Your task to perform on an android device: Find coffee shops on Maps Image 0: 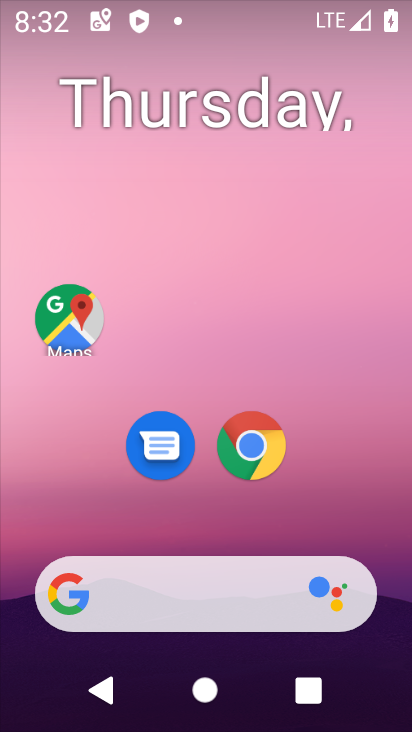
Step 0: drag from (390, 602) to (322, 104)
Your task to perform on an android device: Find coffee shops on Maps Image 1: 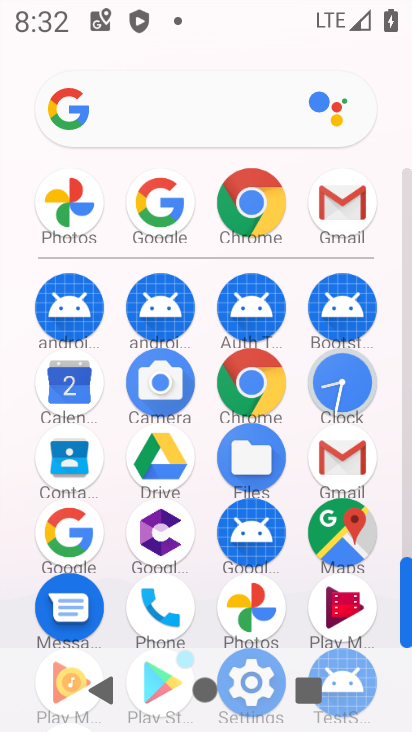
Step 1: click (359, 526)
Your task to perform on an android device: Find coffee shops on Maps Image 2: 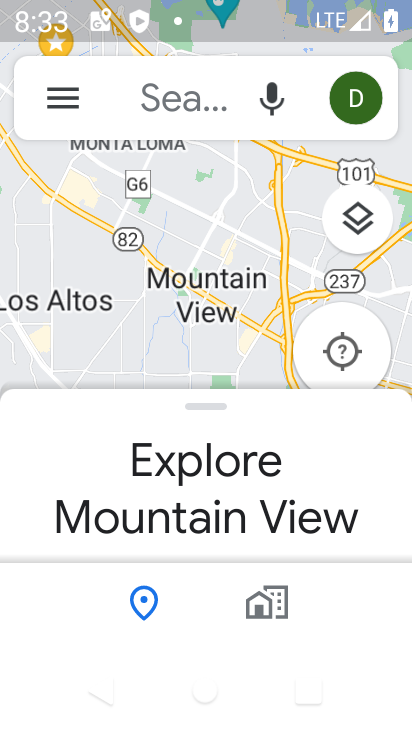
Step 2: click (159, 97)
Your task to perform on an android device: Find coffee shops on Maps Image 3: 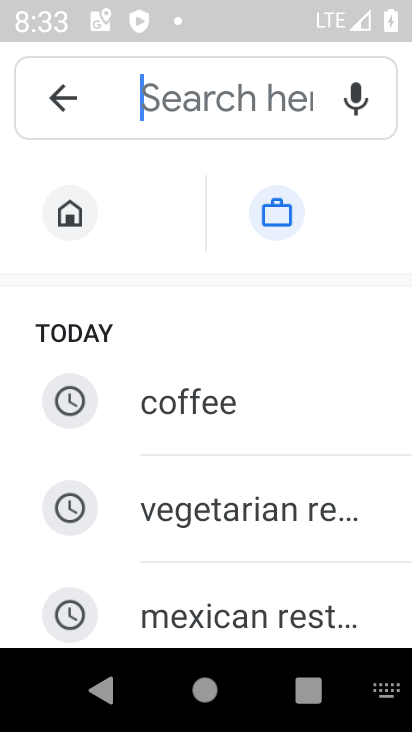
Step 3: click (220, 397)
Your task to perform on an android device: Find coffee shops on Maps Image 4: 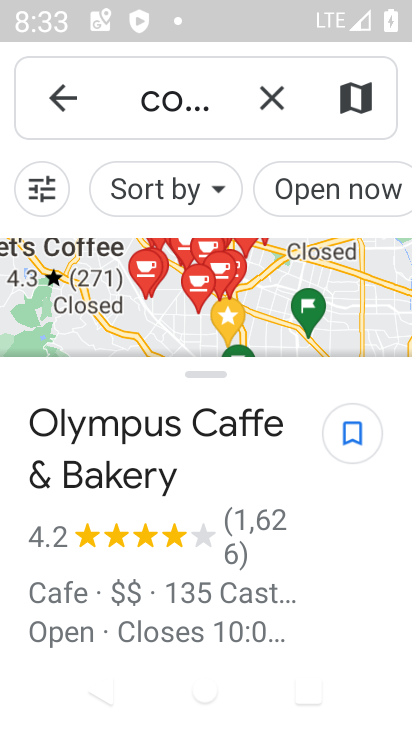
Step 4: task complete